Your task to perform on an android device: Go to Maps Image 0: 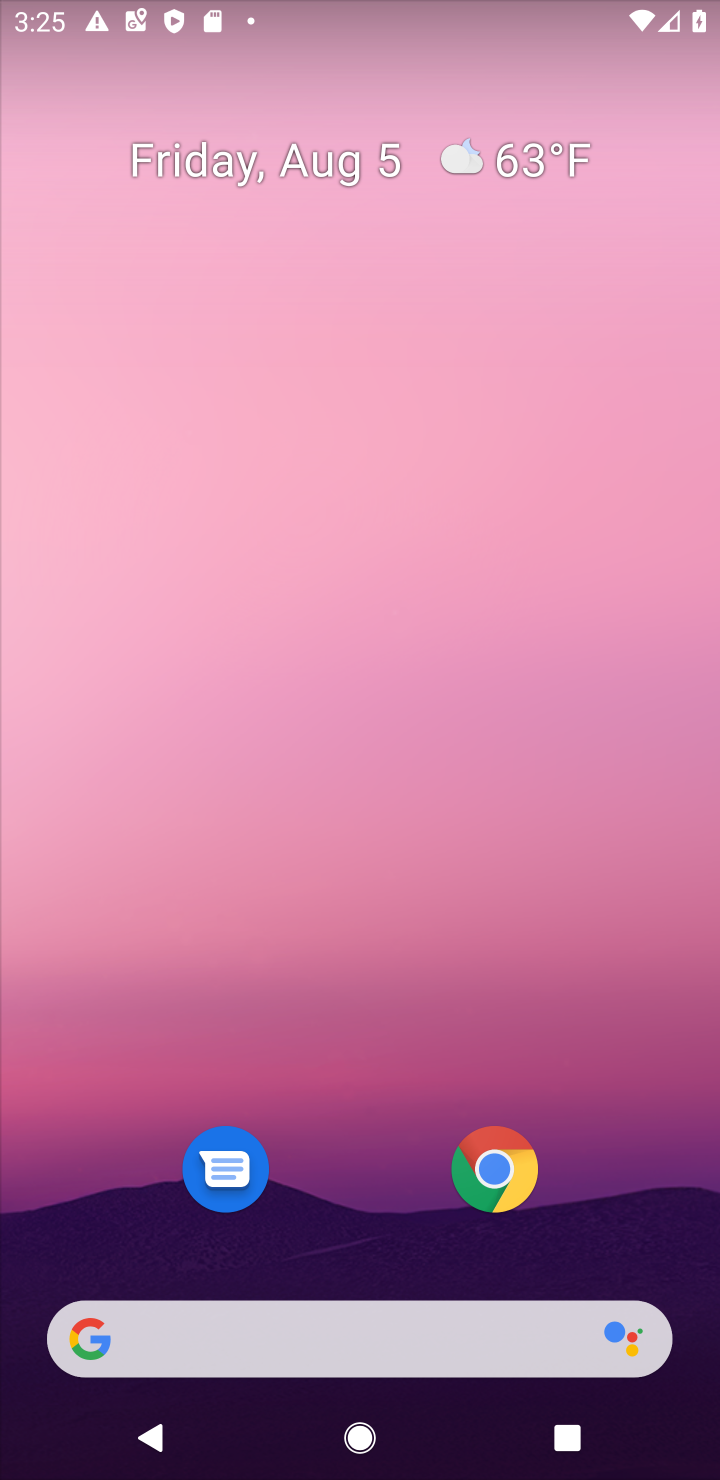
Step 0: drag from (701, 1244) to (550, 362)
Your task to perform on an android device: Go to Maps Image 1: 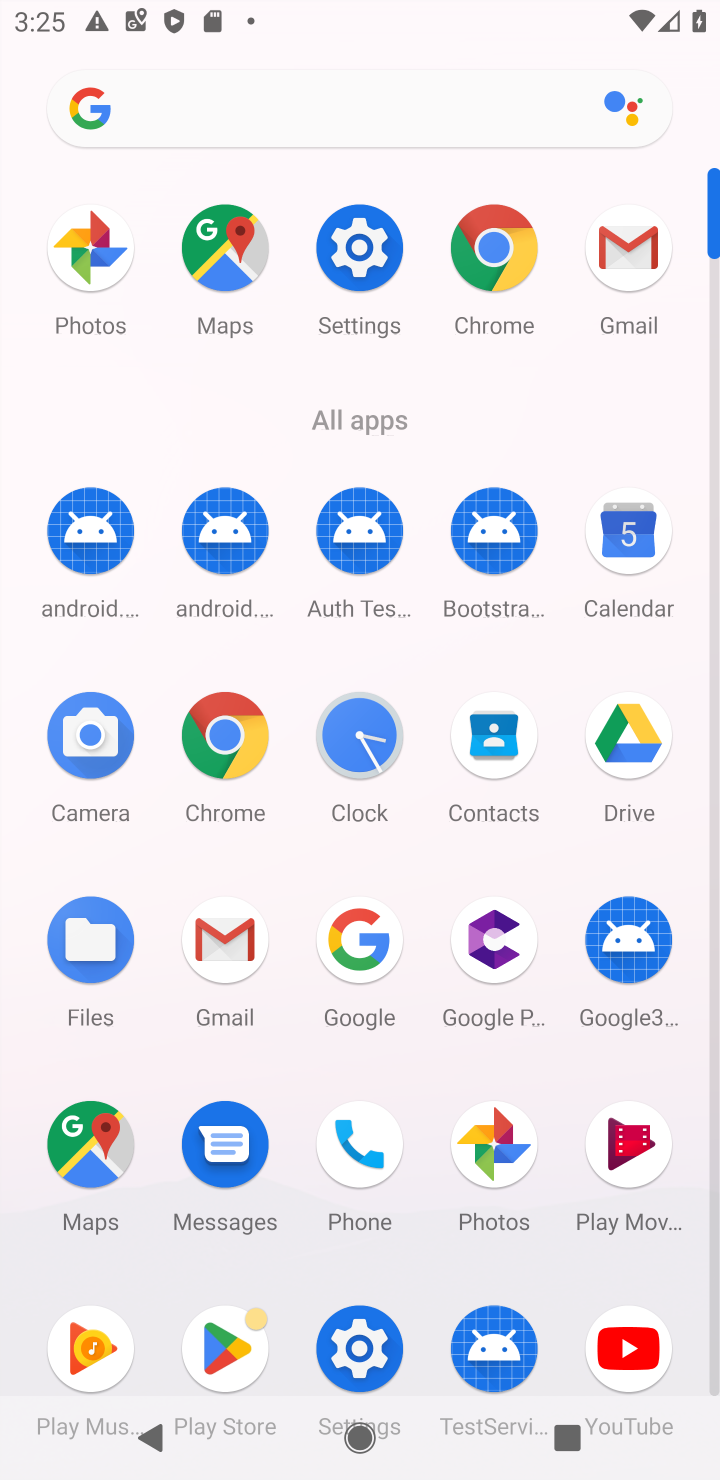
Step 1: click (217, 247)
Your task to perform on an android device: Go to Maps Image 2: 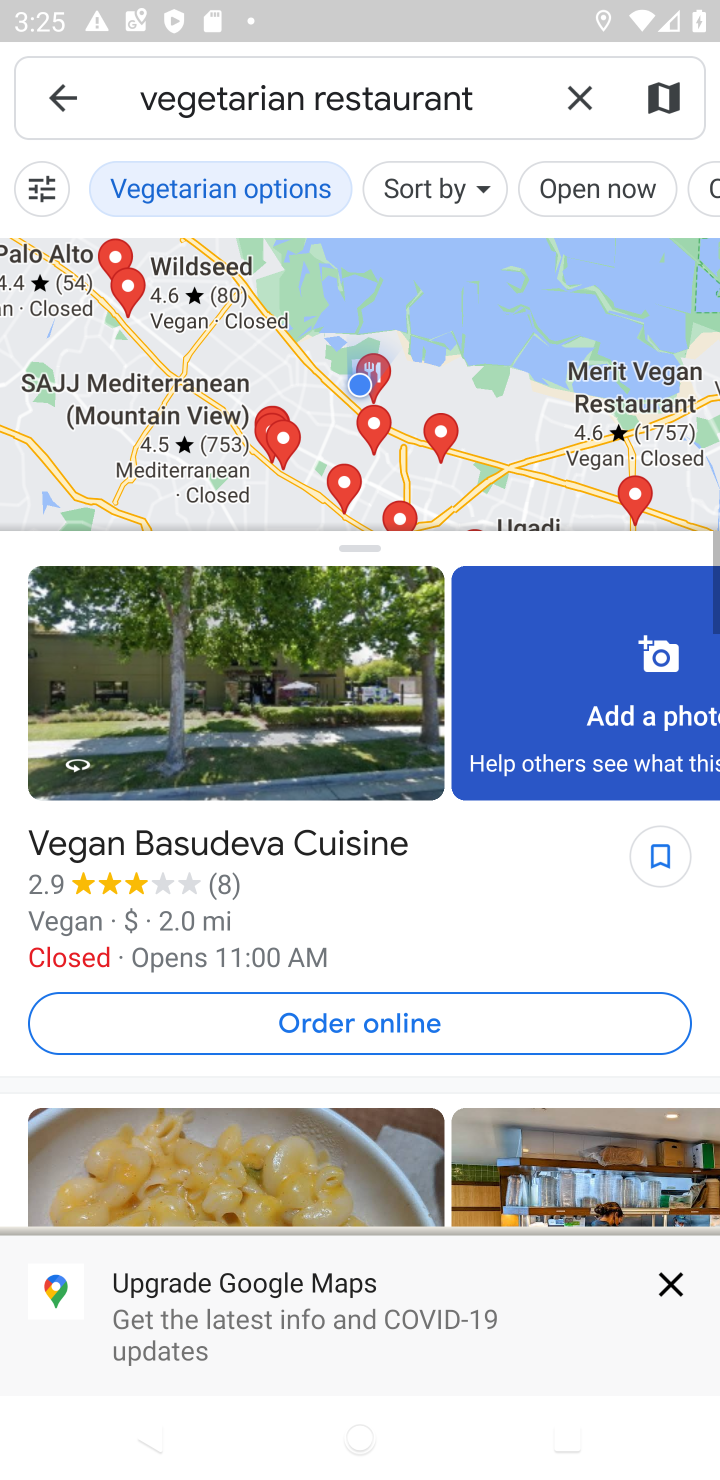
Step 2: click (66, 96)
Your task to perform on an android device: Go to Maps Image 3: 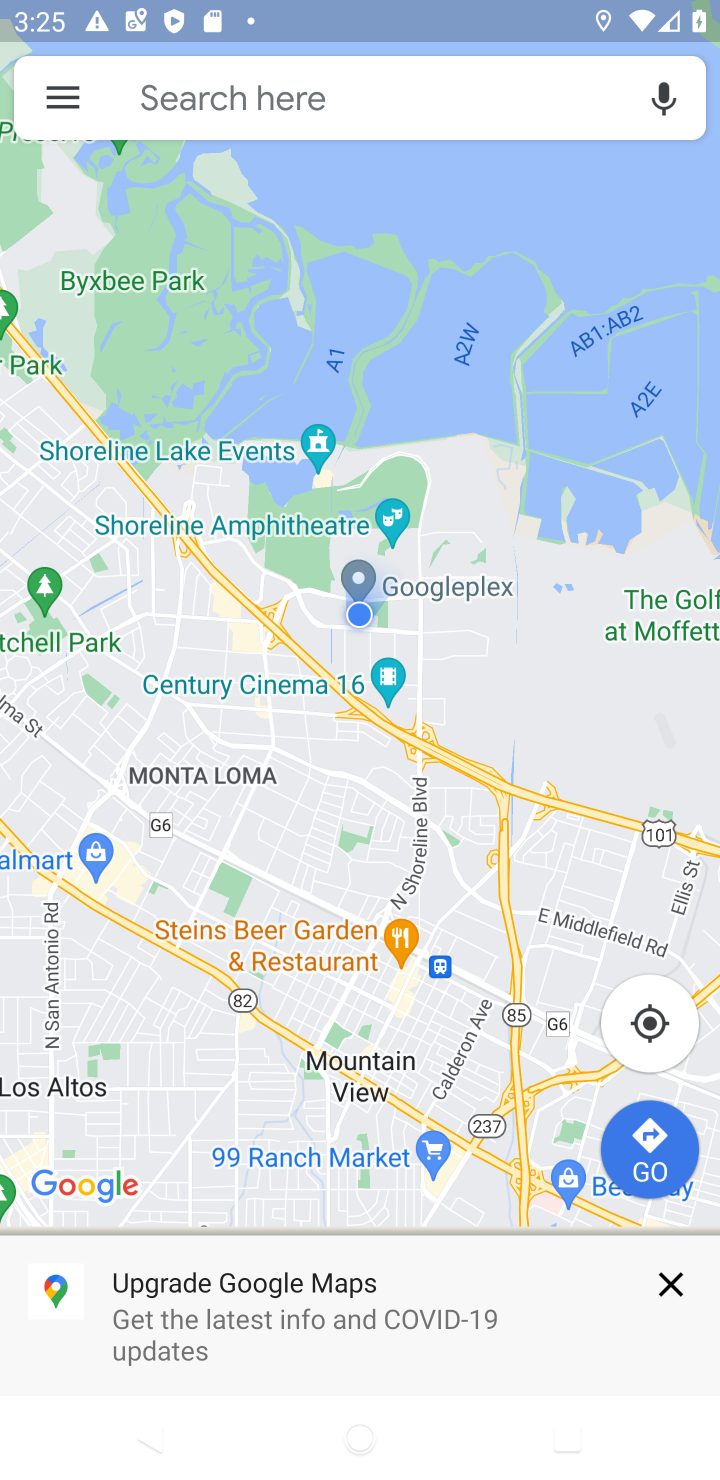
Step 3: task complete